Your task to perform on an android device: find snoozed emails in the gmail app Image 0: 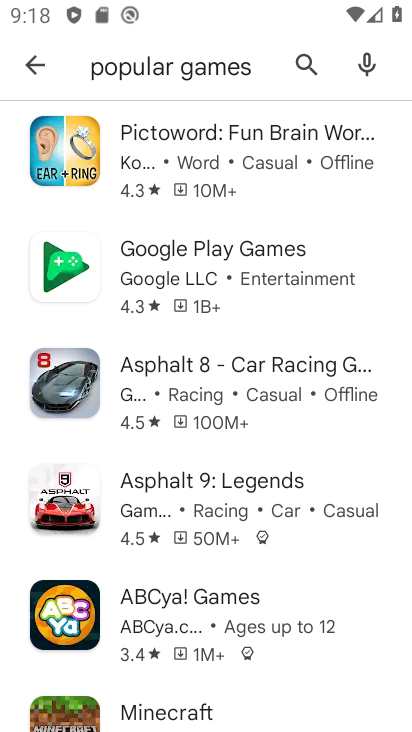
Step 0: press home button
Your task to perform on an android device: find snoozed emails in the gmail app Image 1: 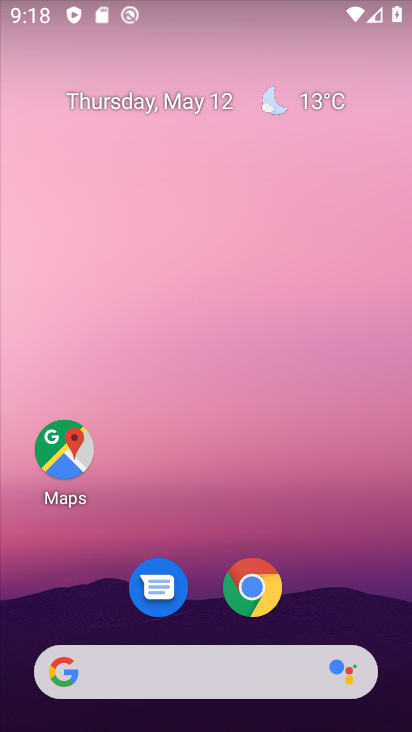
Step 1: drag from (378, 458) to (399, 28)
Your task to perform on an android device: find snoozed emails in the gmail app Image 2: 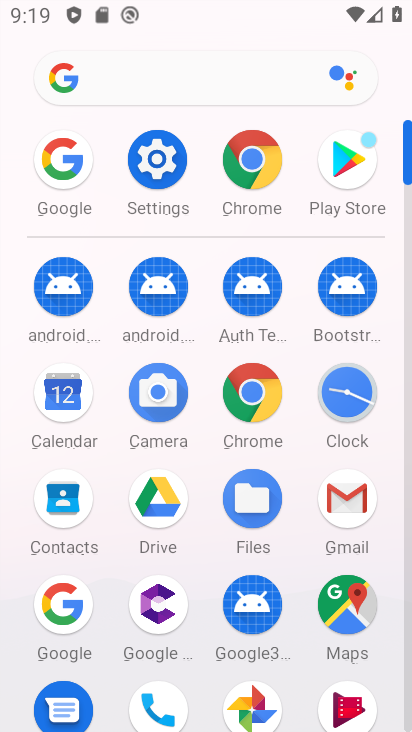
Step 2: click (346, 502)
Your task to perform on an android device: find snoozed emails in the gmail app Image 3: 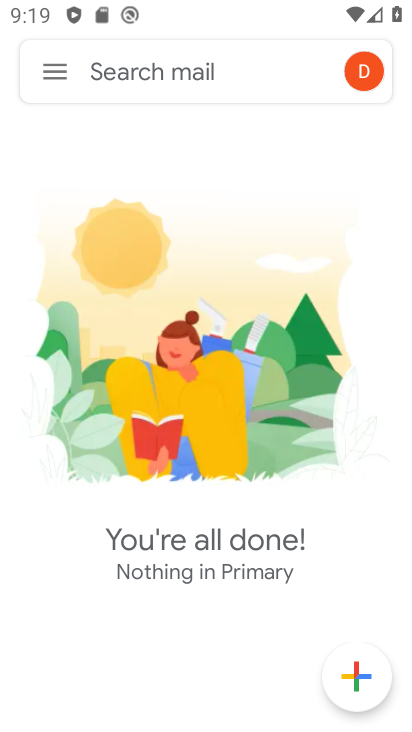
Step 3: click (51, 75)
Your task to perform on an android device: find snoozed emails in the gmail app Image 4: 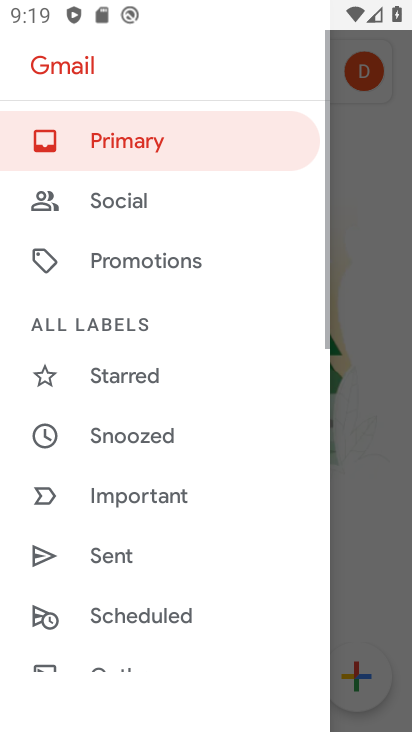
Step 4: drag from (173, 553) to (244, 165)
Your task to perform on an android device: find snoozed emails in the gmail app Image 5: 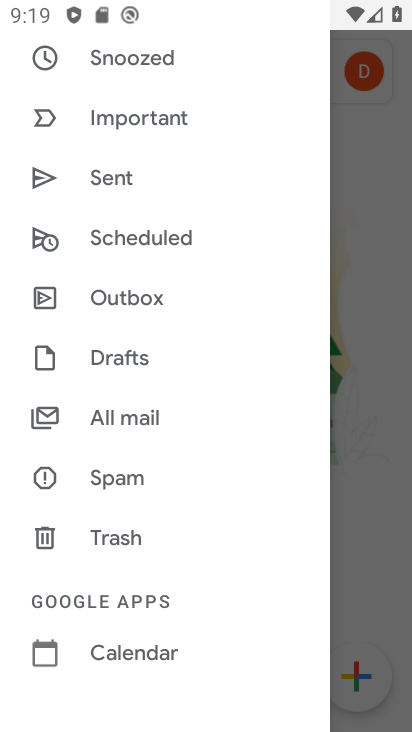
Step 5: click (169, 419)
Your task to perform on an android device: find snoozed emails in the gmail app Image 6: 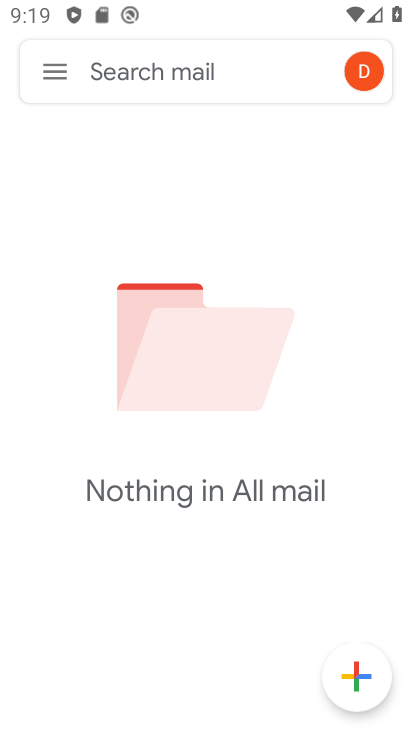
Step 6: task complete